Your task to perform on an android device: Go to eBay Image 0: 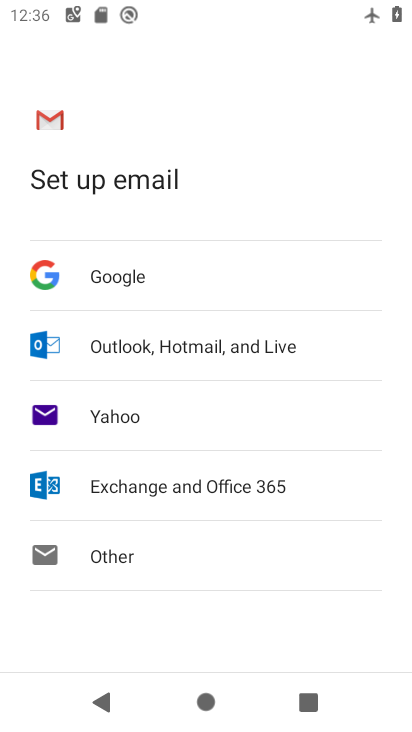
Step 0: click (57, 389)
Your task to perform on an android device: Go to eBay Image 1: 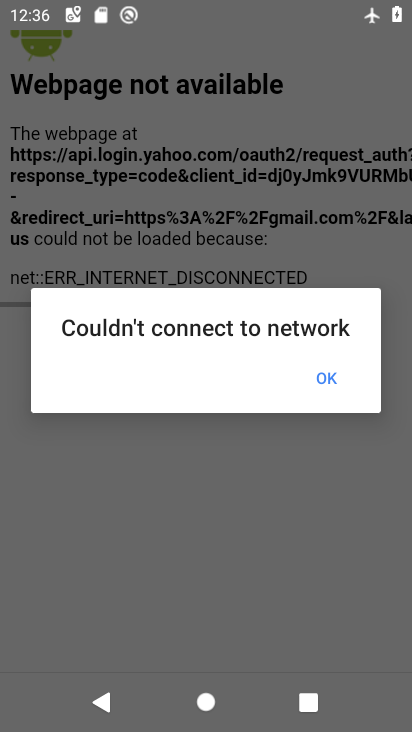
Step 1: press home button
Your task to perform on an android device: Go to eBay Image 2: 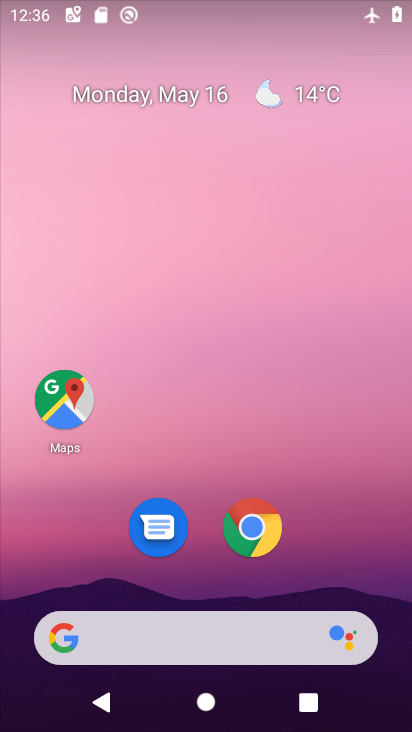
Step 2: click (244, 544)
Your task to perform on an android device: Go to eBay Image 3: 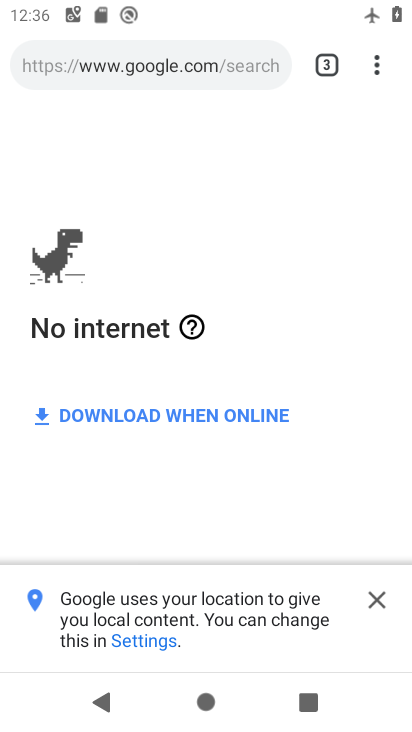
Step 3: click (213, 64)
Your task to perform on an android device: Go to eBay Image 4: 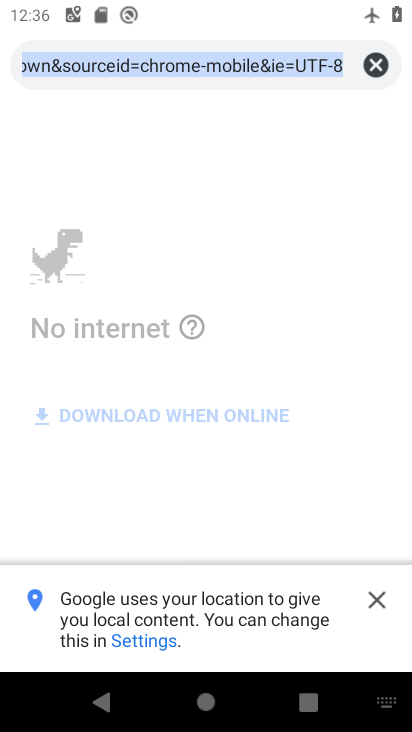
Step 4: type "eBay"
Your task to perform on an android device: Go to eBay Image 5: 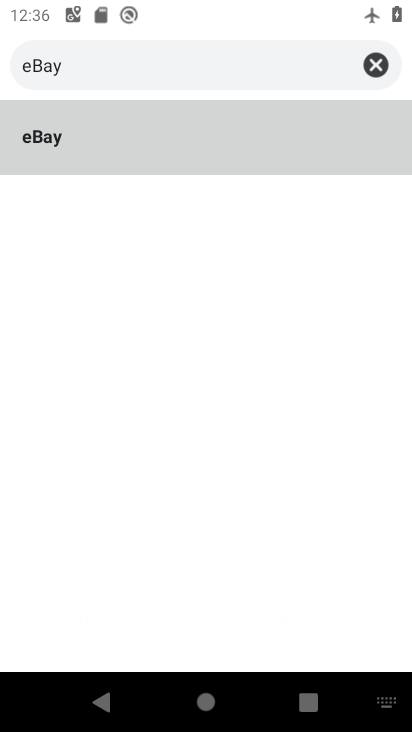
Step 5: drag from (281, 11) to (281, 365)
Your task to perform on an android device: Go to eBay Image 6: 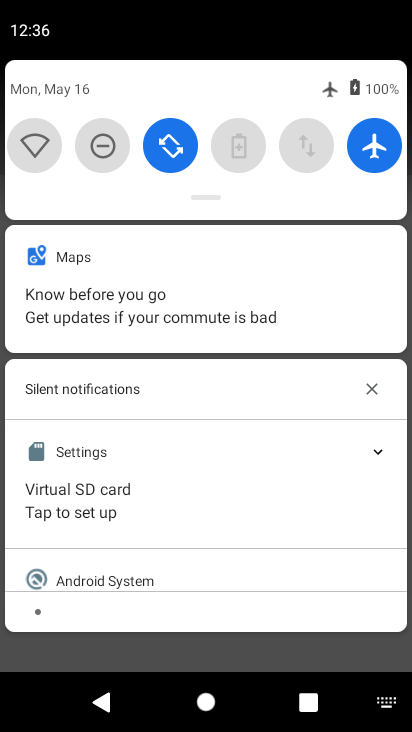
Step 6: click (368, 156)
Your task to perform on an android device: Go to eBay Image 7: 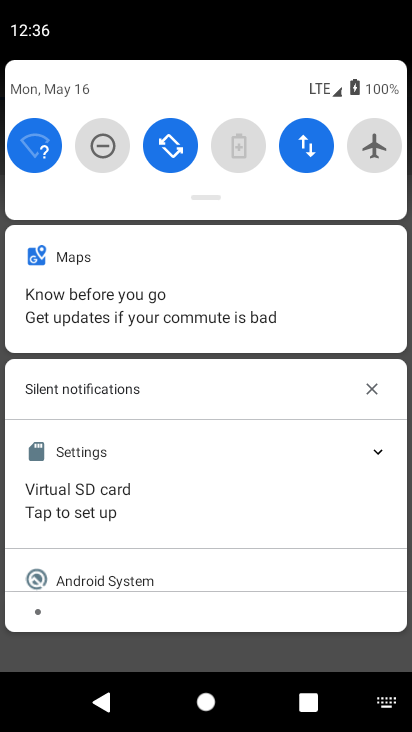
Step 7: drag from (229, 657) to (263, 287)
Your task to perform on an android device: Go to eBay Image 8: 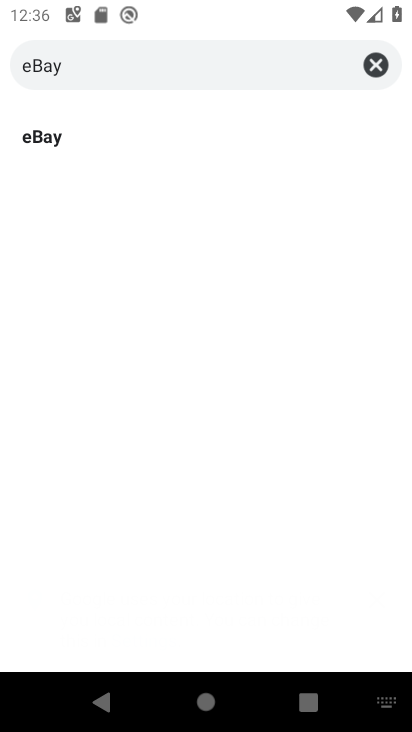
Step 8: click (92, 144)
Your task to perform on an android device: Go to eBay Image 9: 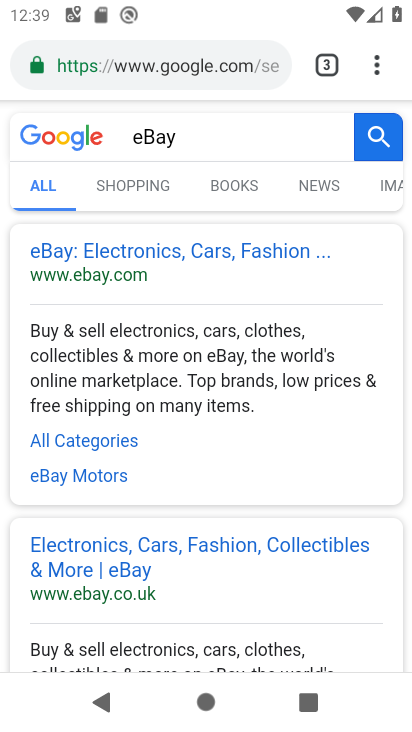
Step 9: task complete